Your task to perform on an android device: turn on javascript in the chrome app Image 0: 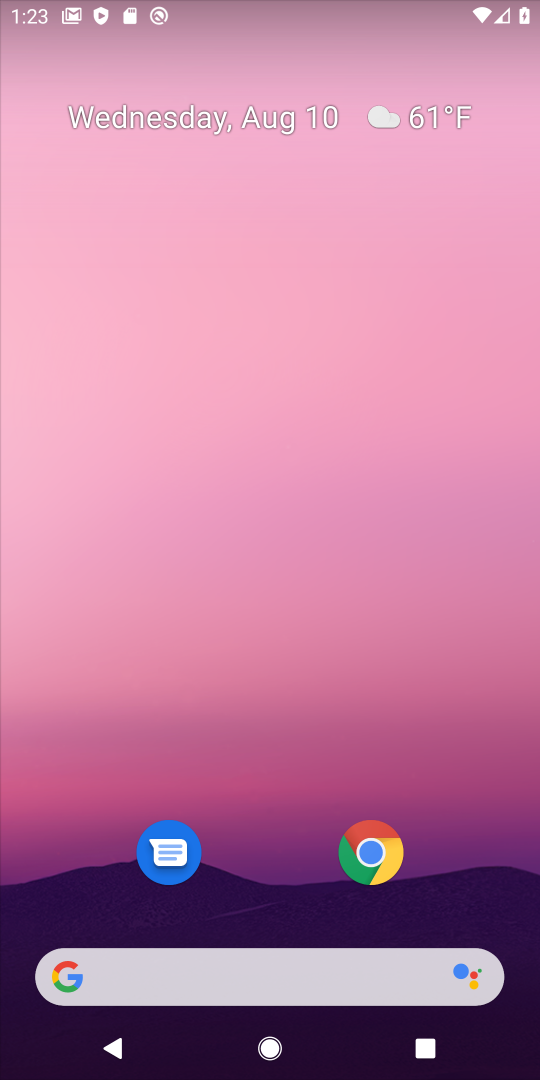
Step 0: drag from (240, 706) to (274, 101)
Your task to perform on an android device: turn on javascript in the chrome app Image 1: 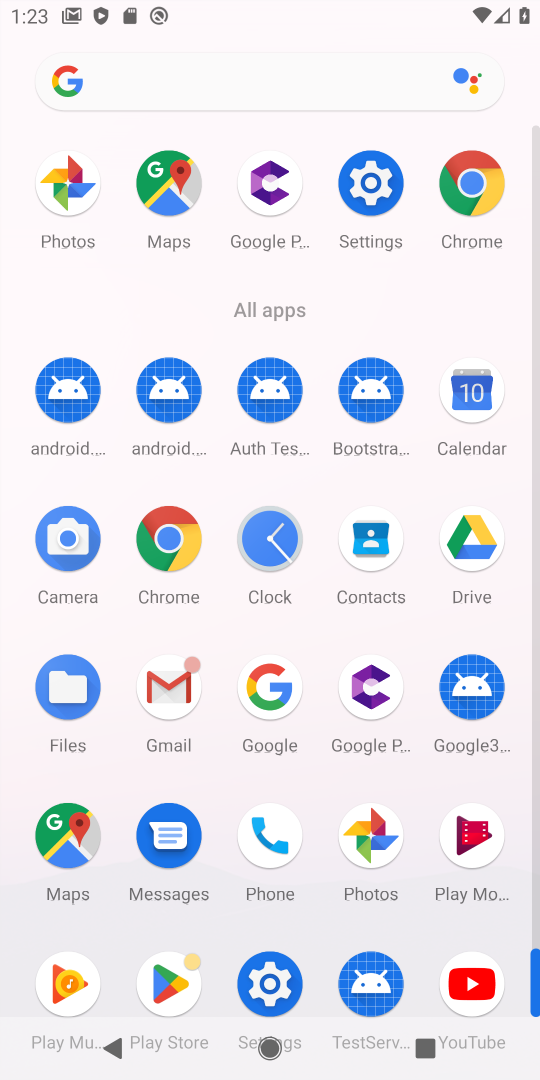
Step 1: click (176, 533)
Your task to perform on an android device: turn on javascript in the chrome app Image 2: 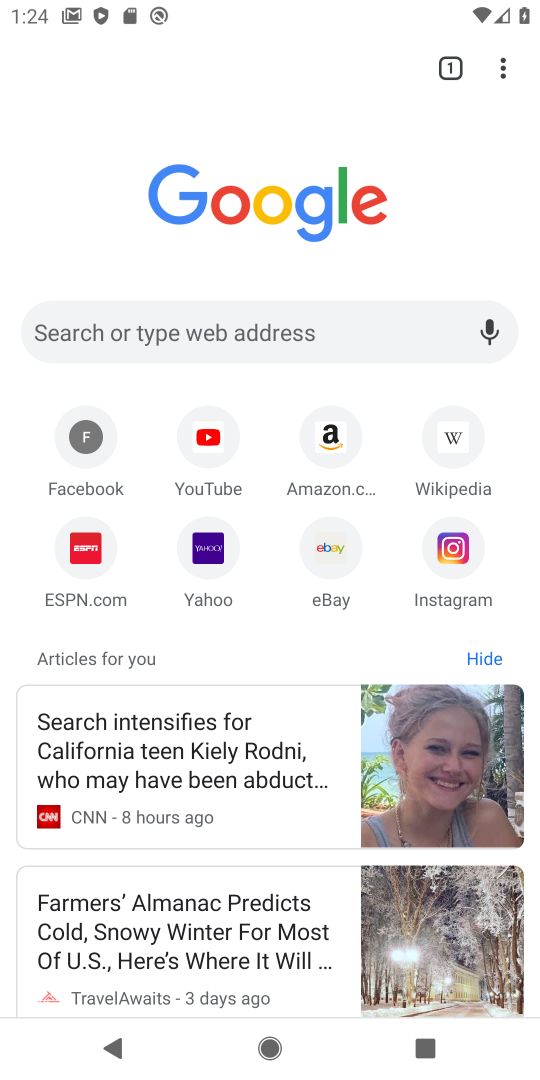
Step 2: drag from (498, 59) to (299, 573)
Your task to perform on an android device: turn on javascript in the chrome app Image 3: 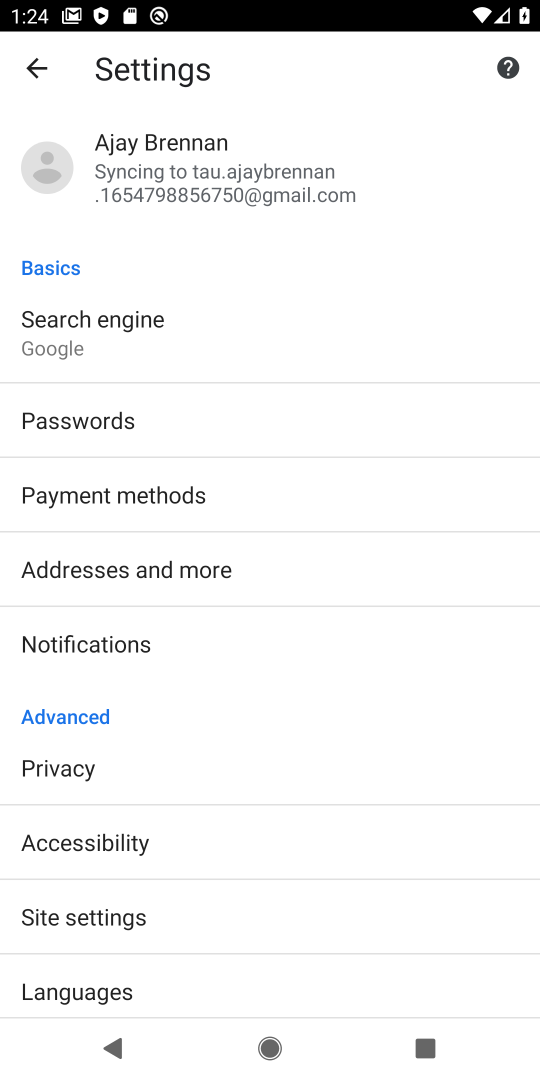
Step 3: click (97, 925)
Your task to perform on an android device: turn on javascript in the chrome app Image 4: 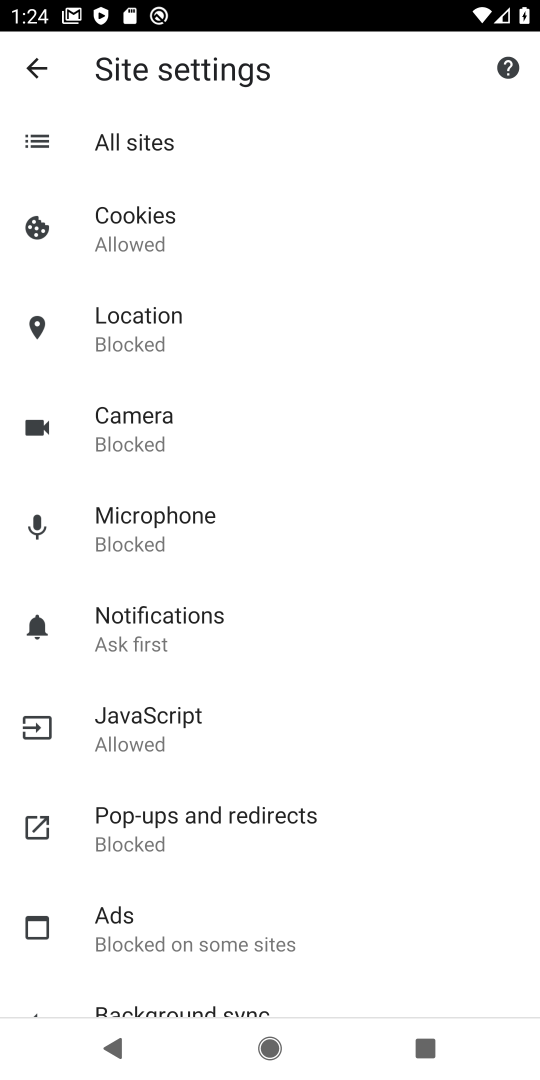
Step 4: click (125, 710)
Your task to perform on an android device: turn on javascript in the chrome app Image 5: 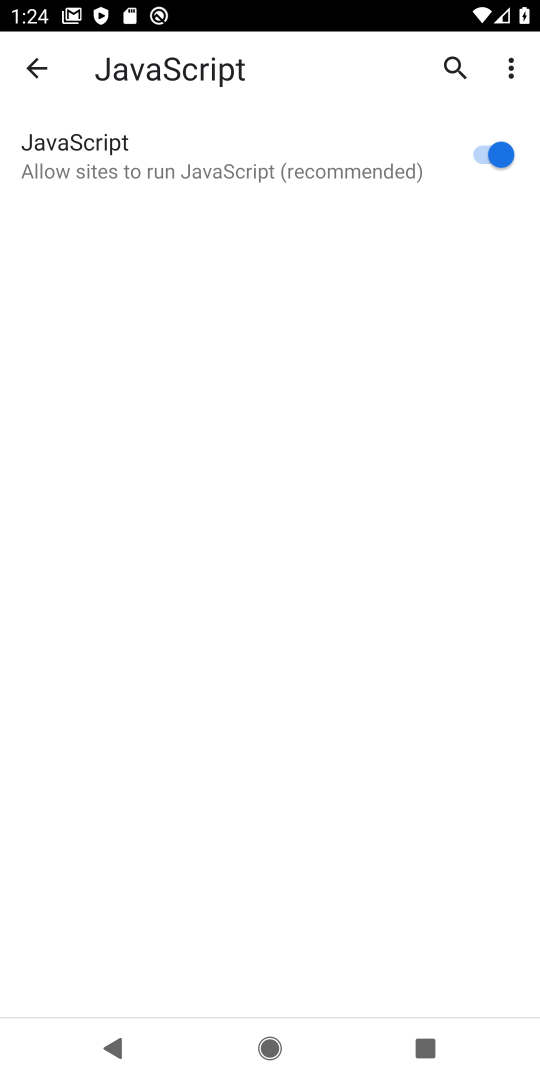
Step 5: task complete